Your task to perform on an android device: turn on wifi Image 0: 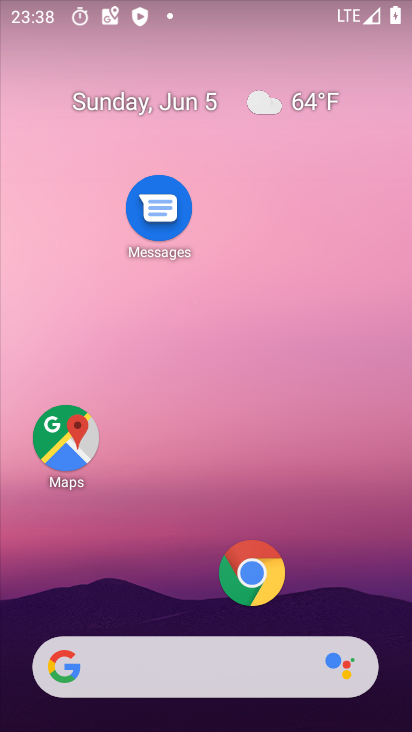
Step 0: drag from (147, 217) to (136, 159)
Your task to perform on an android device: turn on wifi Image 1: 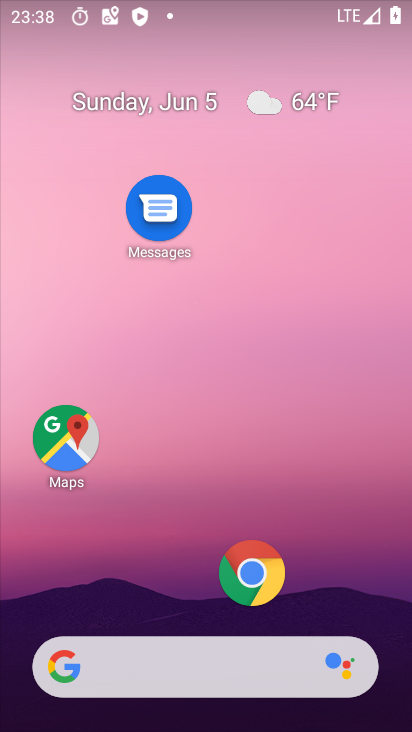
Step 1: drag from (26, 700) to (28, 35)
Your task to perform on an android device: turn on wifi Image 2: 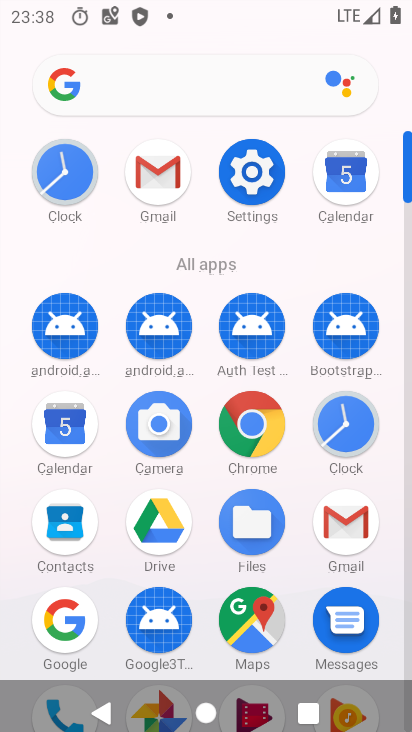
Step 2: click (266, 178)
Your task to perform on an android device: turn on wifi Image 3: 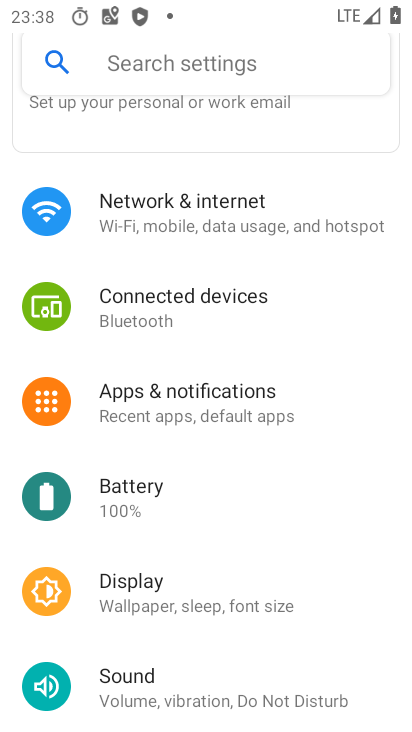
Step 3: click (161, 236)
Your task to perform on an android device: turn on wifi Image 4: 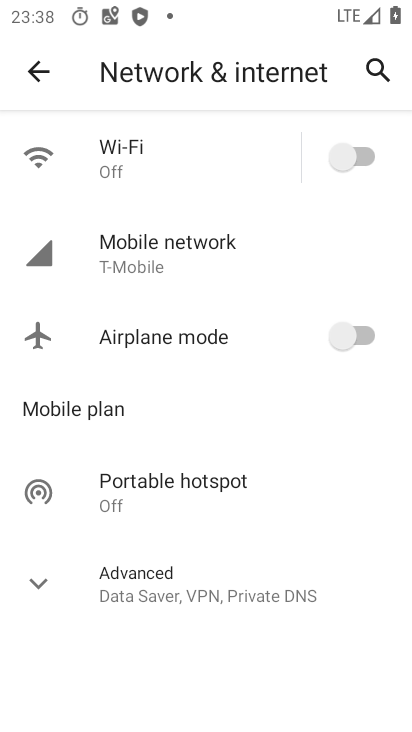
Step 4: click (344, 167)
Your task to perform on an android device: turn on wifi Image 5: 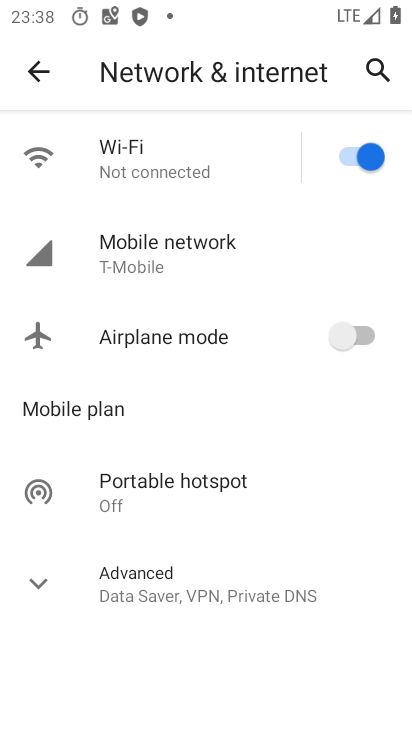
Step 5: task complete